Your task to perform on an android device: Open accessibility settings Image 0: 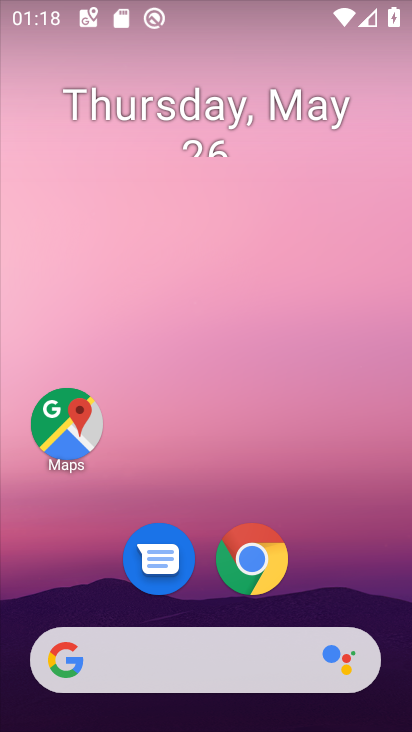
Step 0: drag from (354, 545) to (328, 191)
Your task to perform on an android device: Open accessibility settings Image 1: 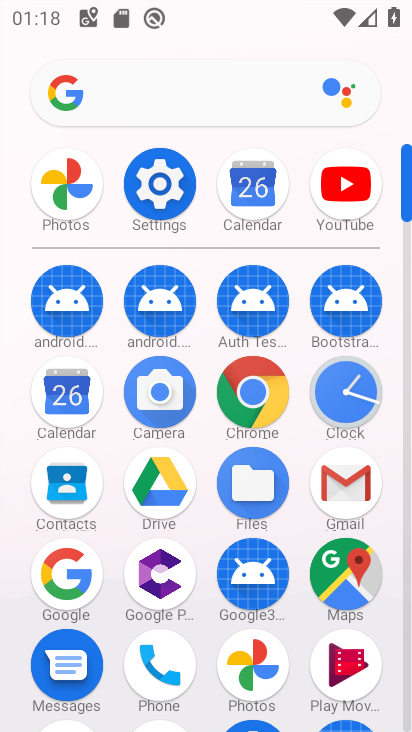
Step 1: drag from (203, 635) to (175, 230)
Your task to perform on an android device: Open accessibility settings Image 2: 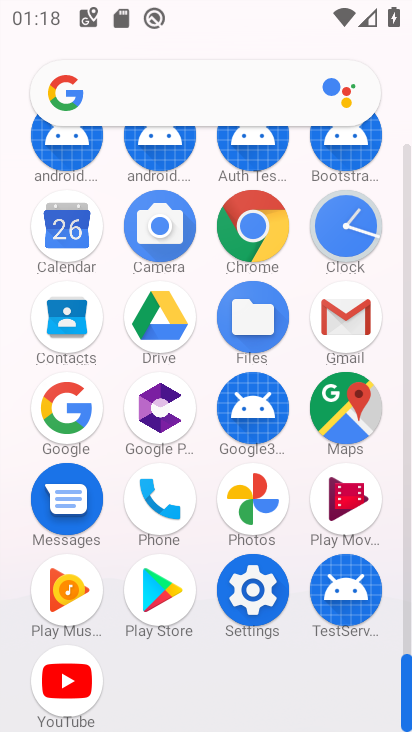
Step 2: click (259, 590)
Your task to perform on an android device: Open accessibility settings Image 3: 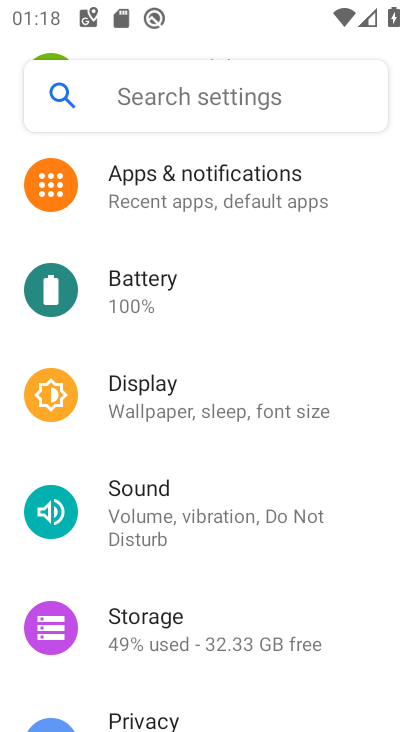
Step 3: drag from (322, 620) to (286, 192)
Your task to perform on an android device: Open accessibility settings Image 4: 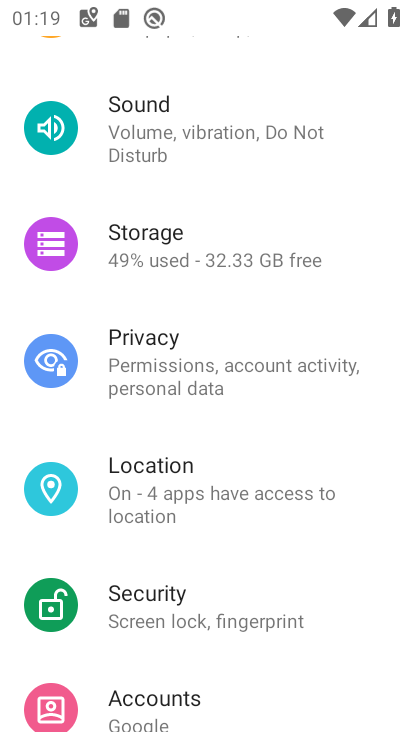
Step 4: drag from (348, 662) to (336, 315)
Your task to perform on an android device: Open accessibility settings Image 5: 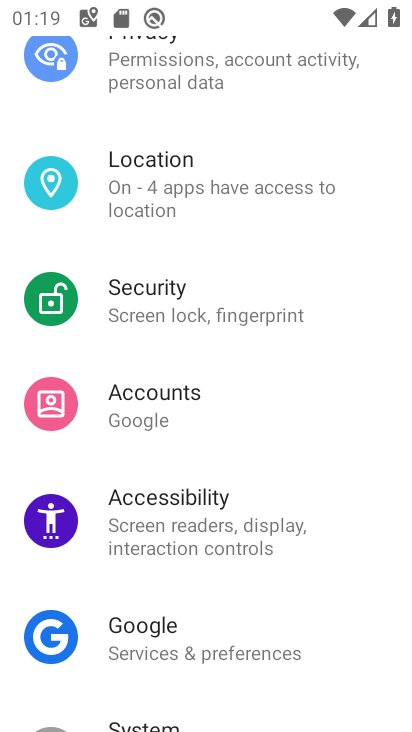
Step 5: click (244, 502)
Your task to perform on an android device: Open accessibility settings Image 6: 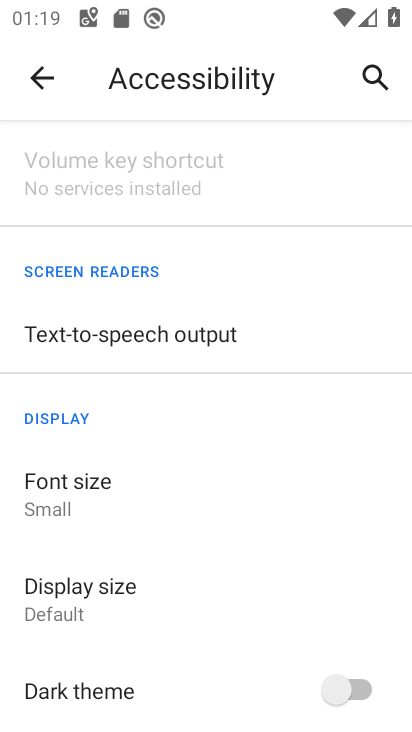
Step 6: task complete